Your task to perform on an android device: toggle wifi Image 0: 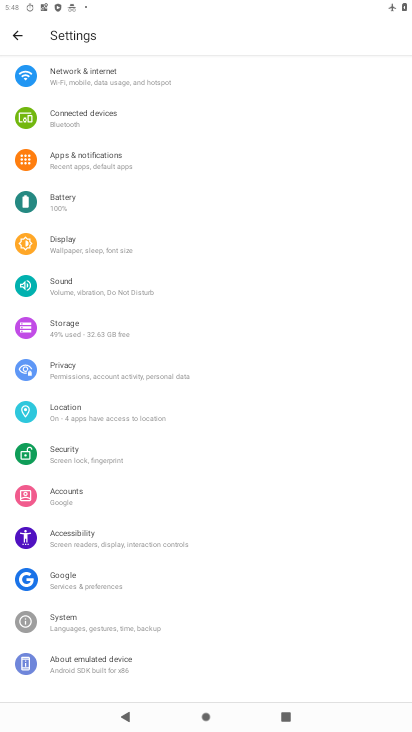
Step 0: click (65, 80)
Your task to perform on an android device: toggle wifi Image 1: 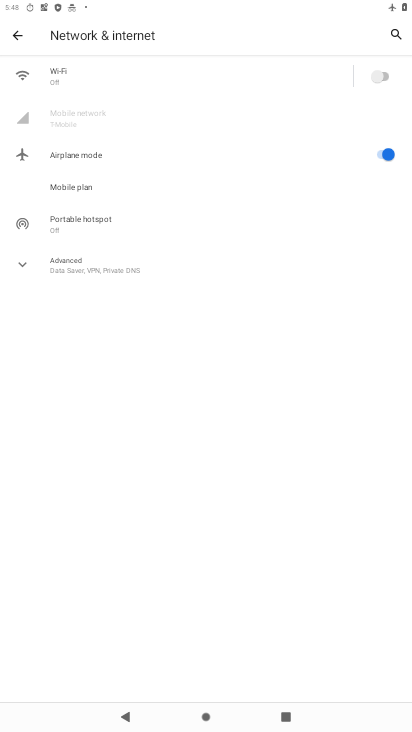
Step 1: click (385, 72)
Your task to perform on an android device: toggle wifi Image 2: 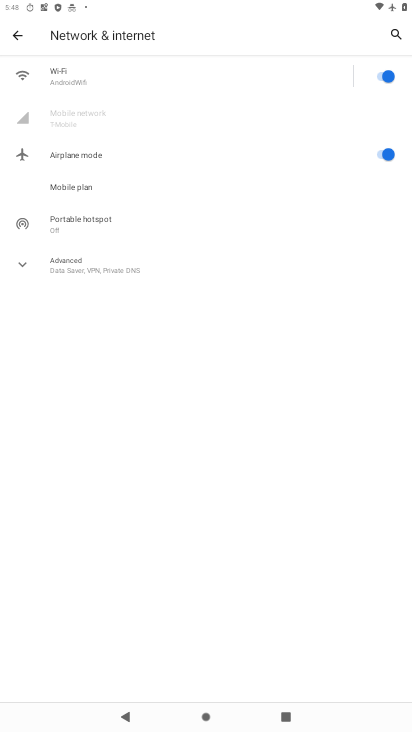
Step 2: task complete